Your task to perform on an android device: Open notification settings Image 0: 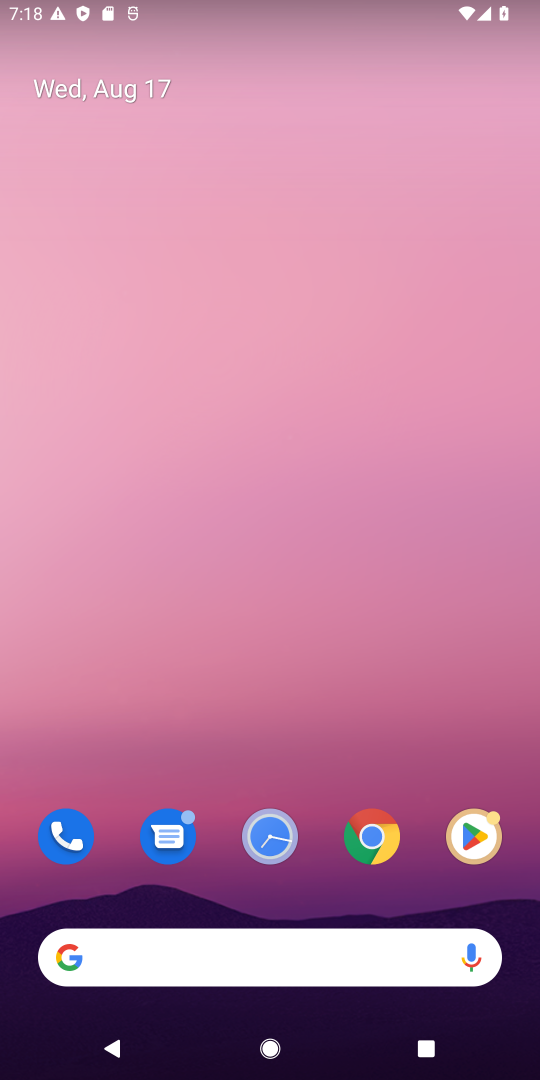
Step 0: drag from (262, 796) to (334, 161)
Your task to perform on an android device: Open notification settings Image 1: 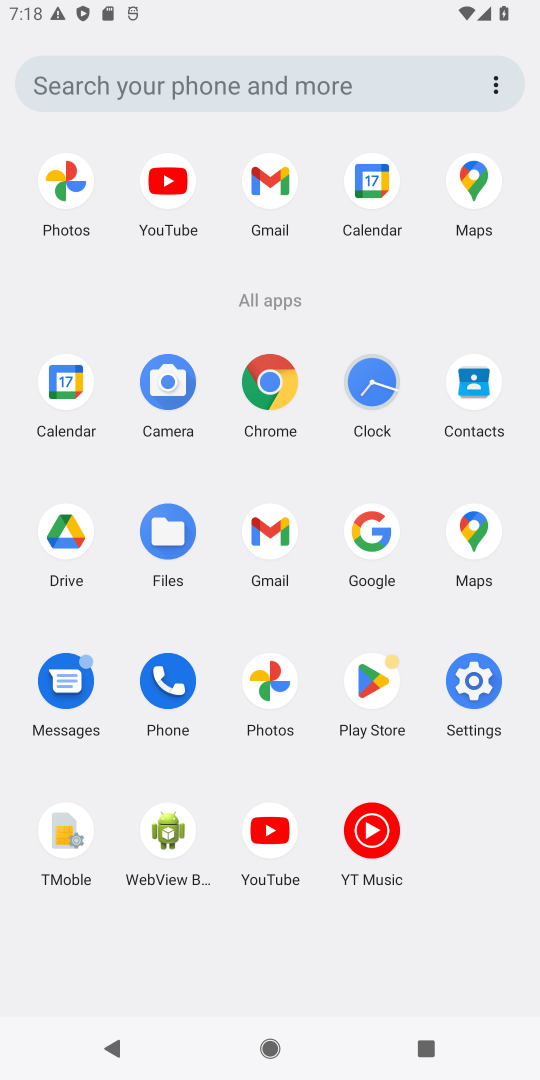
Step 1: click (468, 705)
Your task to perform on an android device: Open notification settings Image 2: 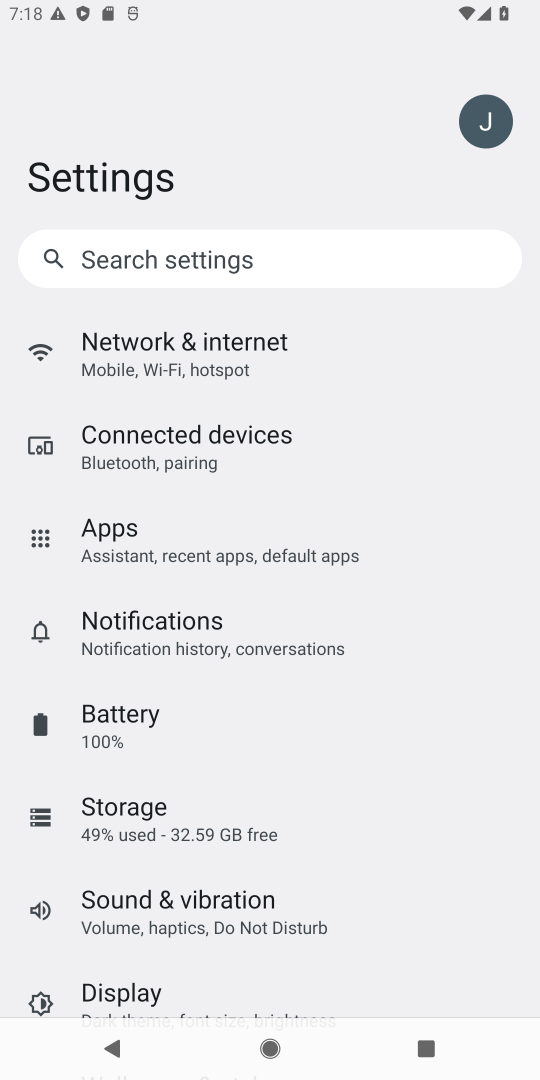
Step 2: click (209, 622)
Your task to perform on an android device: Open notification settings Image 3: 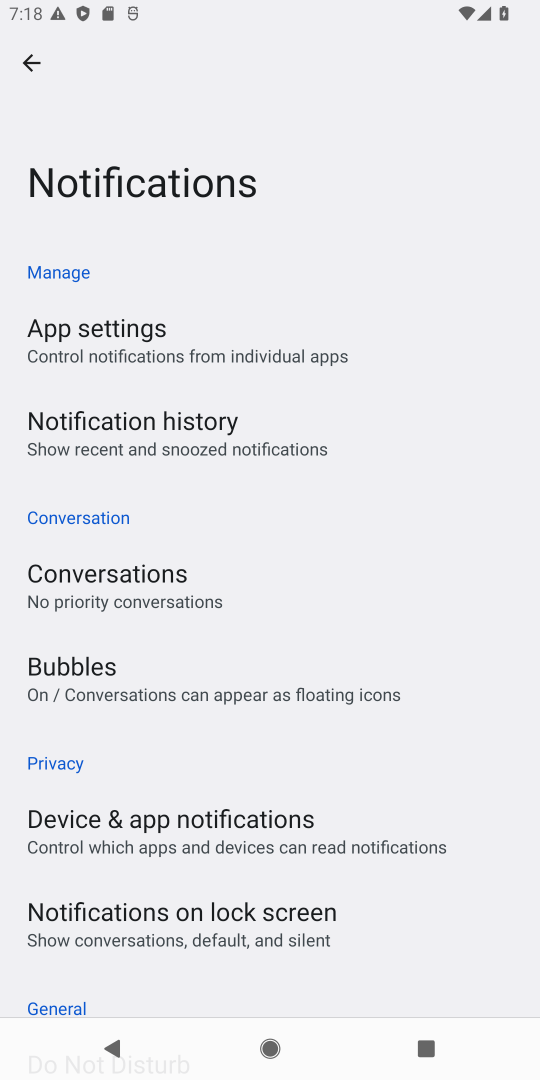
Step 3: task complete